Your task to perform on an android device: Open the stopwatch Image 0: 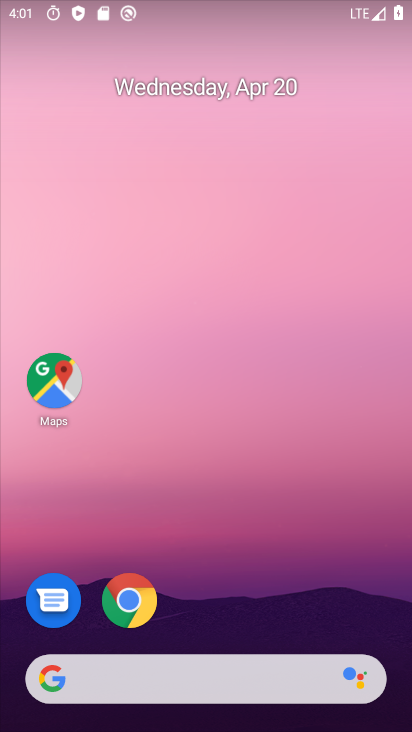
Step 0: drag from (320, 618) to (246, 94)
Your task to perform on an android device: Open the stopwatch Image 1: 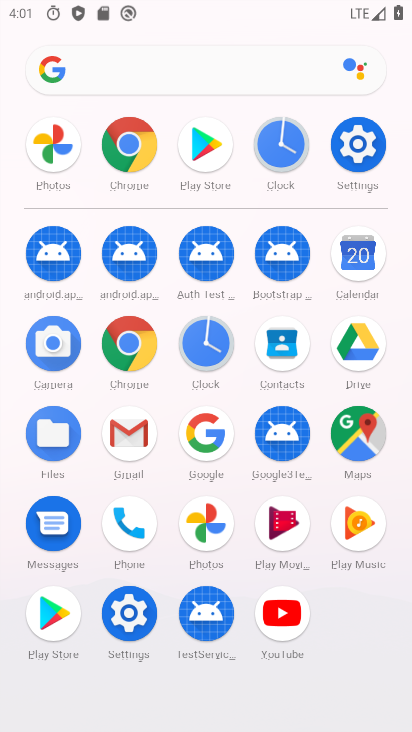
Step 1: click (204, 359)
Your task to perform on an android device: Open the stopwatch Image 2: 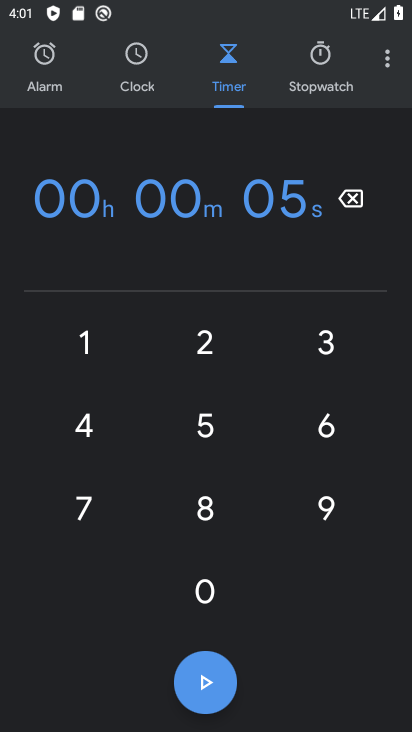
Step 2: click (338, 72)
Your task to perform on an android device: Open the stopwatch Image 3: 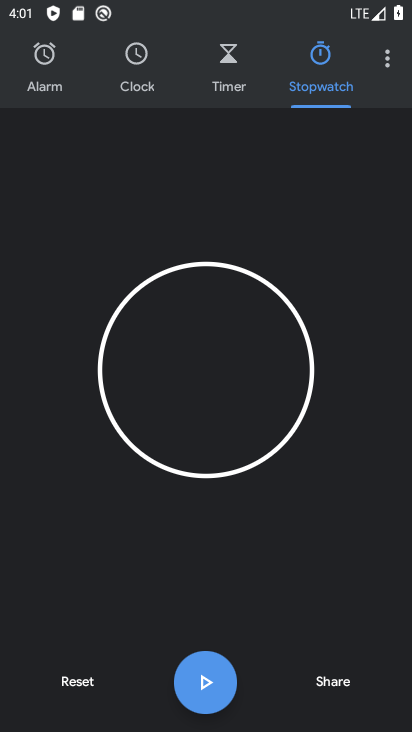
Step 3: task complete